Your task to perform on an android device: toggle translation in the chrome app Image 0: 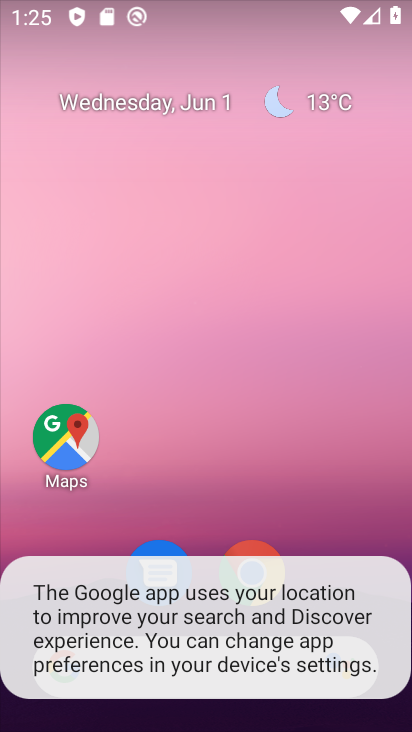
Step 0: drag from (211, 508) to (149, 3)
Your task to perform on an android device: toggle translation in the chrome app Image 1: 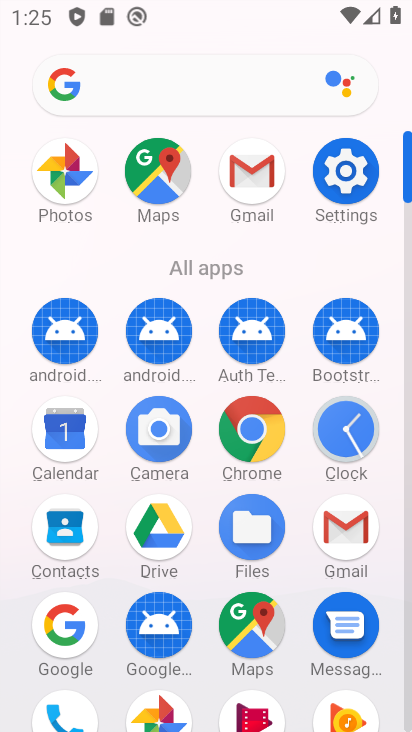
Step 1: click (251, 431)
Your task to perform on an android device: toggle translation in the chrome app Image 2: 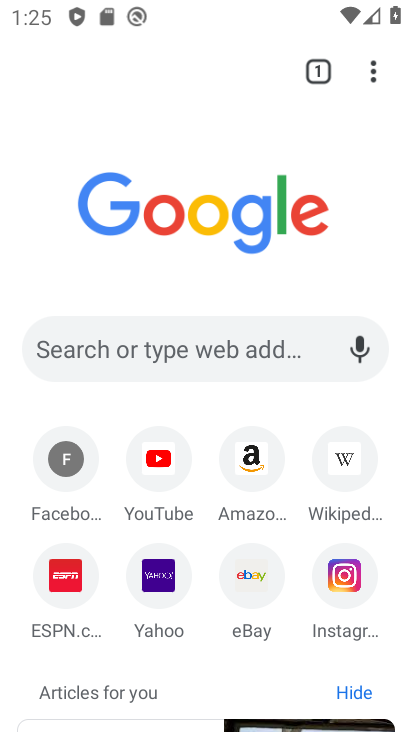
Step 2: click (376, 79)
Your task to perform on an android device: toggle translation in the chrome app Image 3: 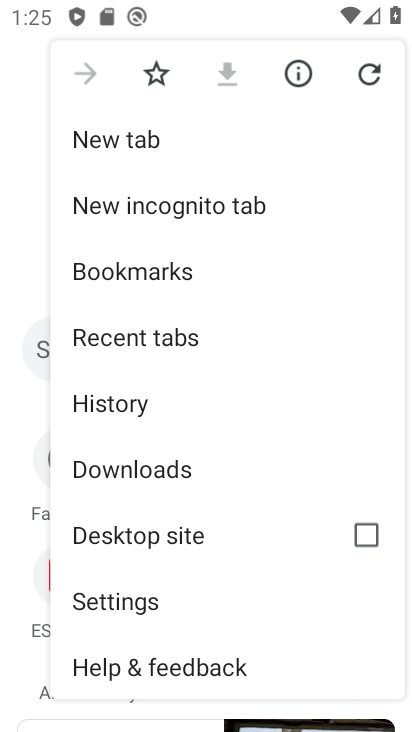
Step 3: click (103, 600)
Your task to perform on an android device: toggle translation in the chrome app Image 4: 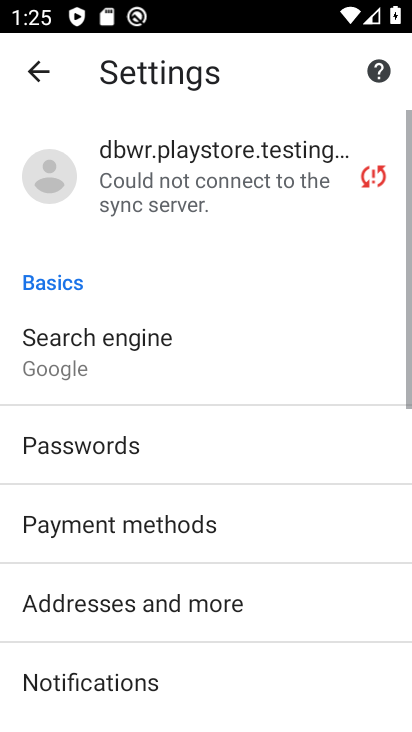
Step 4: drag from (230, 577) to (264, 54)
Your task to perform on an android device: toggle translation in the chrome app Image 5: 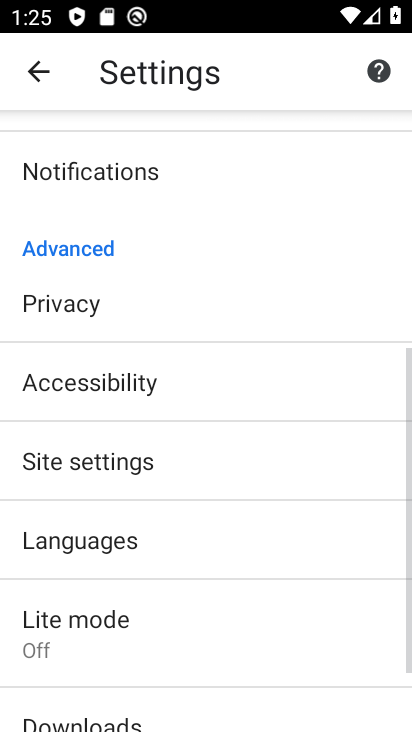
Step 5: click (142, 540)
Your task to perform on an android device: toggle translation in the chrome app Image 6: 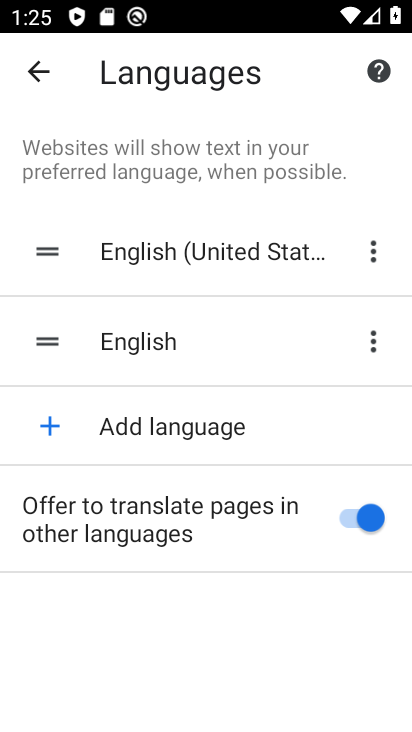
Step 6: click (346, 518)
Your task to perform on an android device: toggle translation in the chrome app Image 7: 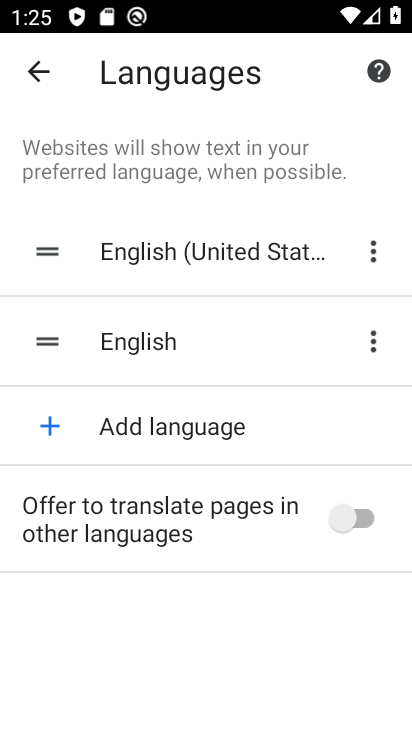
Step 7: task complete